Your task to perform on an android device: Go to Google maps Image 0: 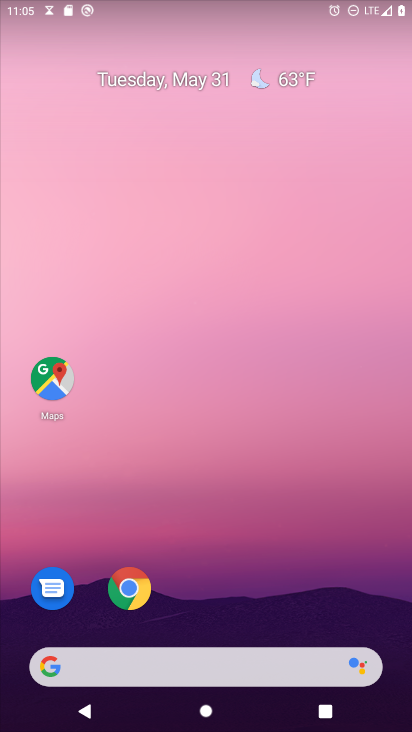
Step 0: click (52, 379)
Your task to perform on an android device: Go to Google maps Image 1: 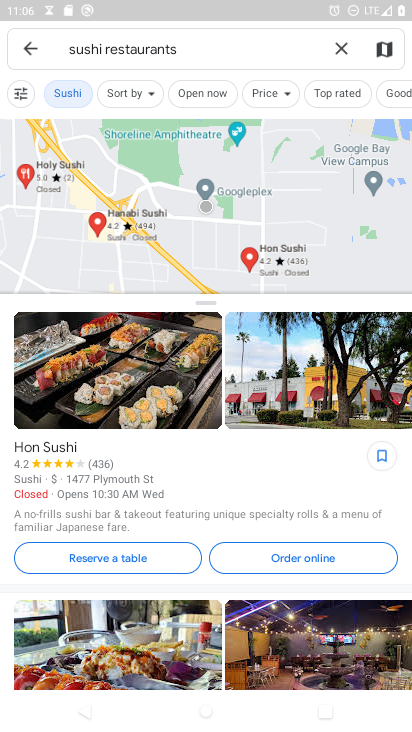
Step 1: click (343, 50)
Your task to perform on an android device: Go to Google maps Image 2: 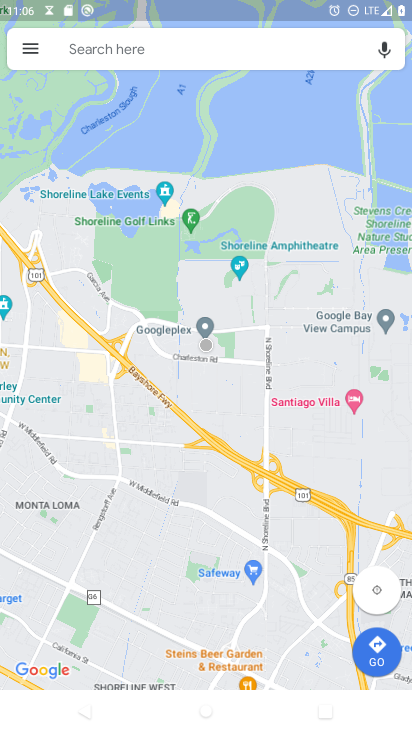
Step 2: task complete